Your task to perform on an android device: search for starred emails in the gmail app Image 0: 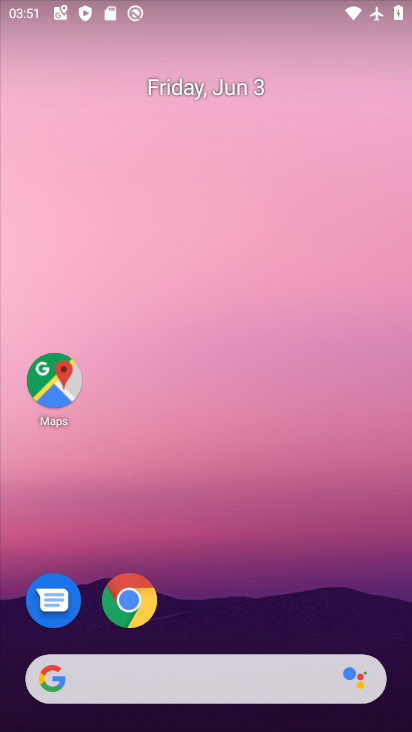
Step 0: drag from (239, 633) to (365, 0)
Your task to perform on an android device: search for starred emails in the gmail app Image 1: 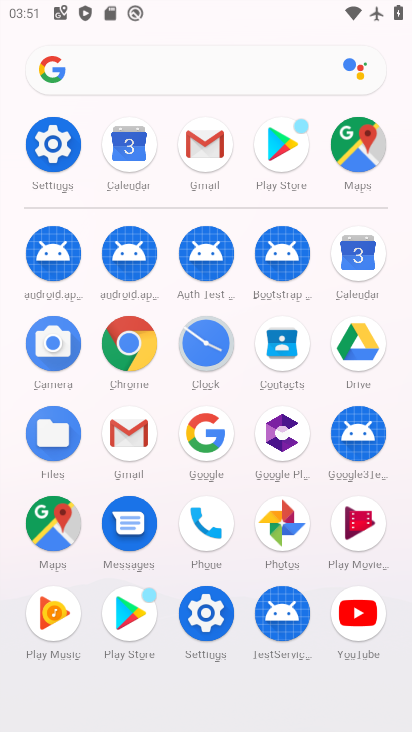
Step 1: click (133, 449)
Your task to perform on an android device: search for starred emails in the gmail app Image 2: 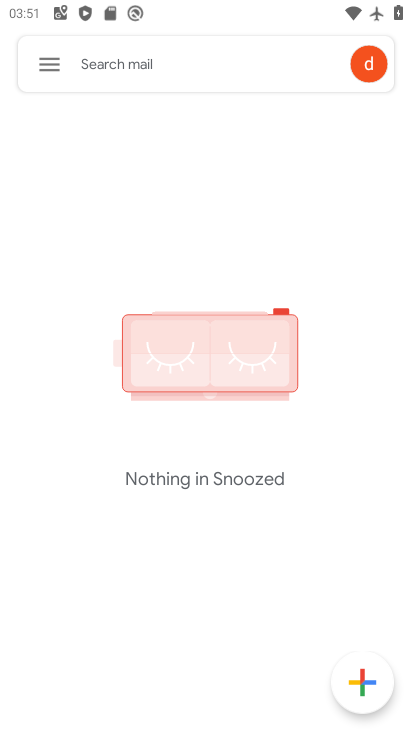
Step 2: click (53, 67)
Your task to perform on an android device: search for starred emails in the gmail app Image 3: 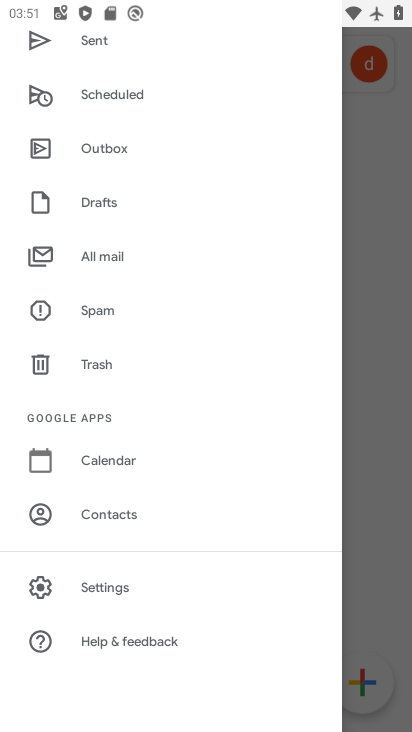
Step 3: drag from (131, 239) to (133, 538)
Your task to perform on an android device: search for starred emails in the gmail app Image 4: 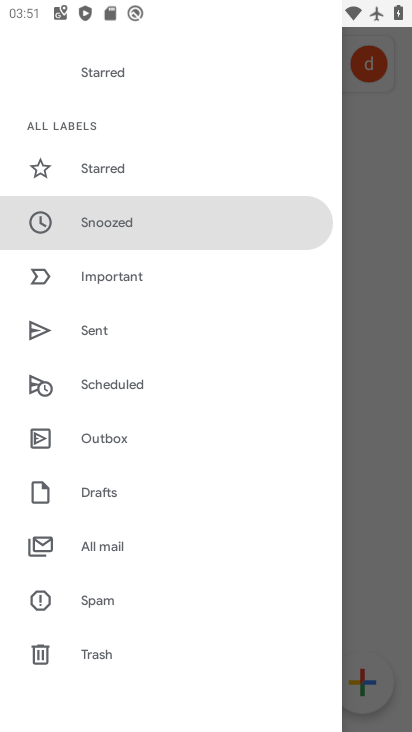
Step 4: click (114, 173)
Your task to perform on an android device: search for starred emails in the gmail app Image 5: 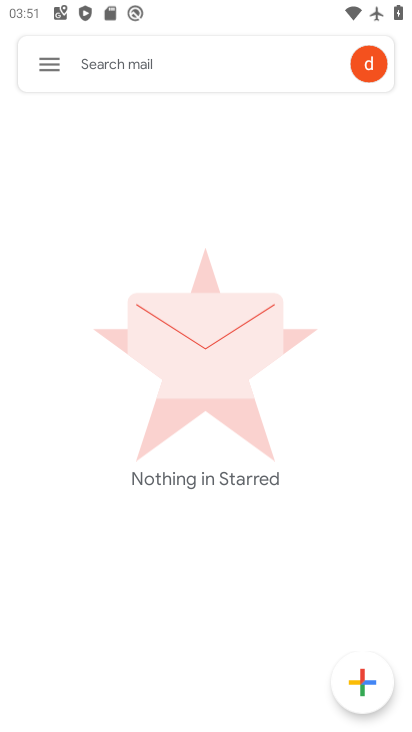
Step 5: task complete